Your task to perform on an android device: What's on my calendar tomorrow? Image 0: 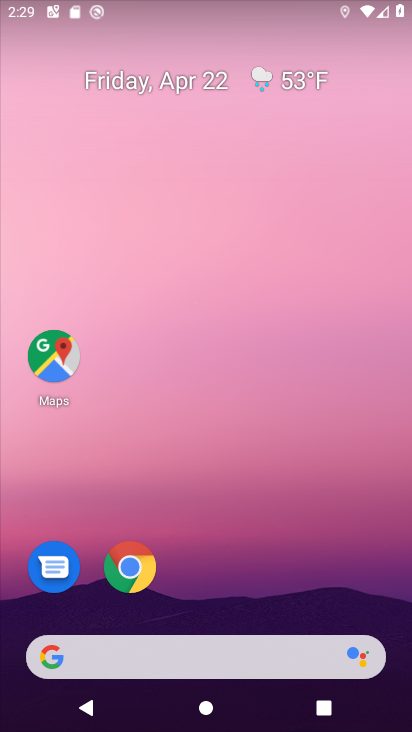
Step 0: drag from (264, 553) to (314, 134)
Your task to perform on an android device: What's on my calendar tomorrow? Image 1: 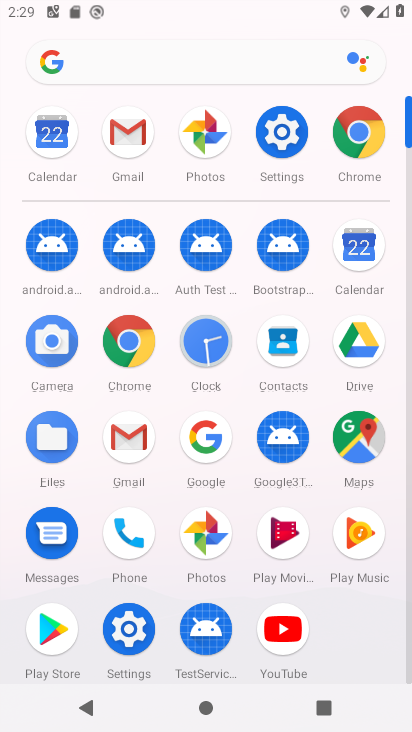
Step 1: click (355, 247)
Your task to perform on an android device: What's on my calendar tomorrow? Image 2: 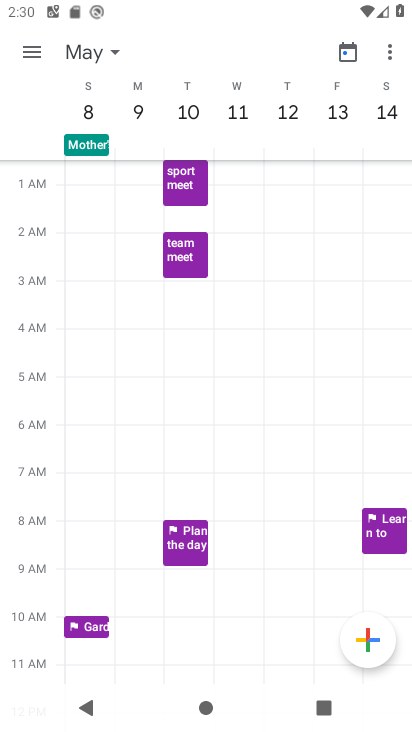
Step 2: drag from (90, 320) to (395, 329)
Your task to perform on an android device: What's on my calendar tomorrow? Image 3: 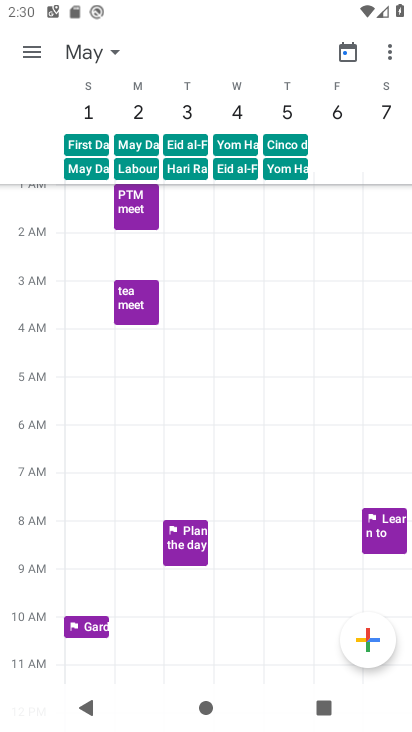
Step 3: drag from (96, 365) to (410, 372)
Your task to perform on an android device: What's on my calendar tomorrow? Image 4: 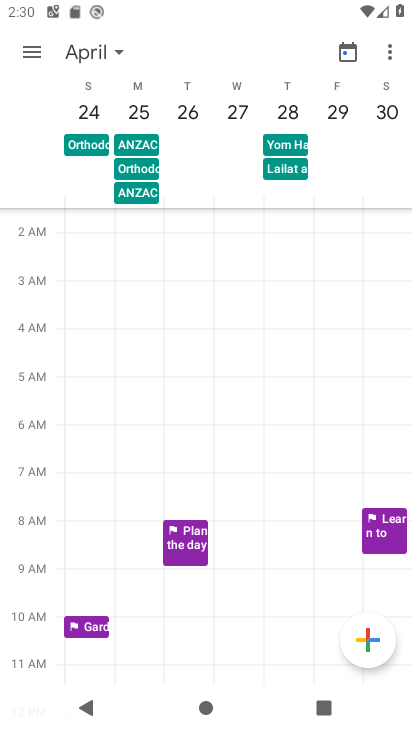
Step 4: drag from (91, 389) to (400, 417)
Your task to perform on an android device: What's on my calendar tomorrow? Image 5: 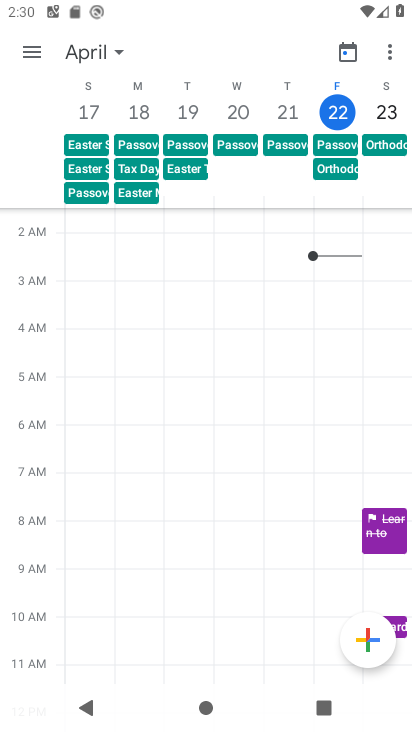
Step 5: click (346, 111)
Your task to perform on an android device: What's on my calendar tomorrow? Image 6: 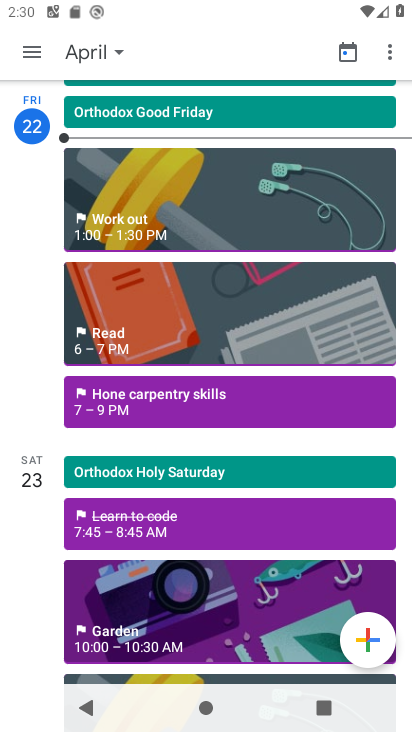
Step 6: task complete